Your task to perform on an android device: What's the weather today? Image 0: 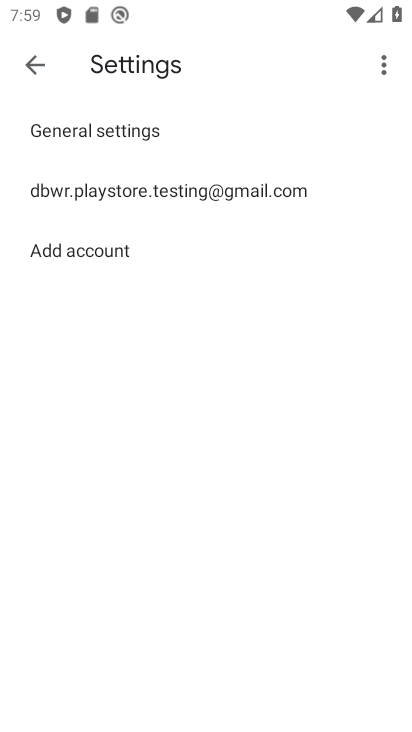
Step 0: press home button
Your task to perform on an android device: What's the weather today? Image 1: 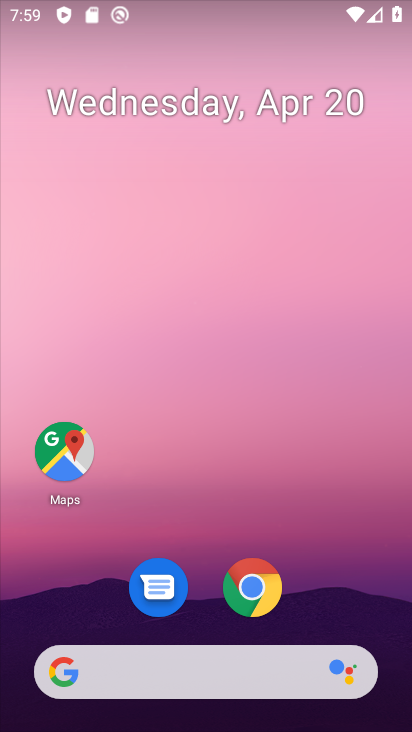
Step 1: click (256, 680)
Your task to perform on an android device: What's the weather today? Image 2: 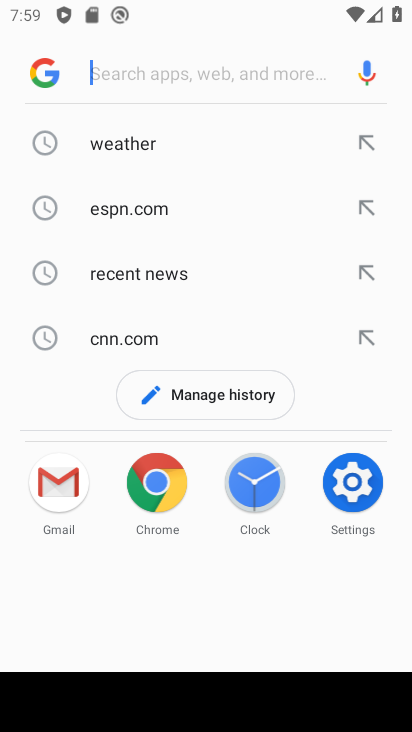
Step 2: click (137, 140)
Your task to perform on an android device: What's the weather today? Image 3: 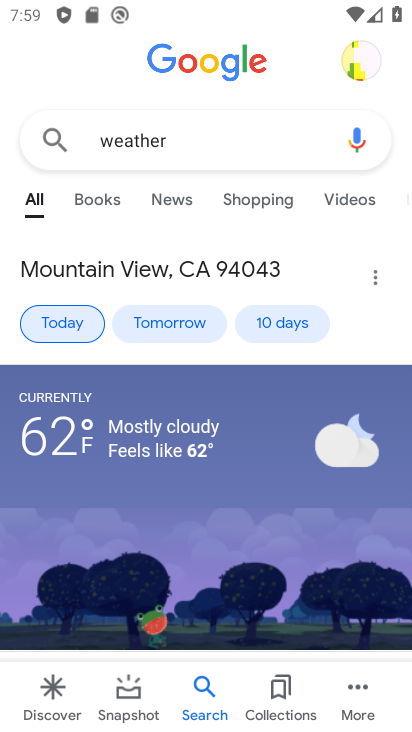
Step 3: task complete